Your task to perform on an android device: Go to Google maps Image 0: 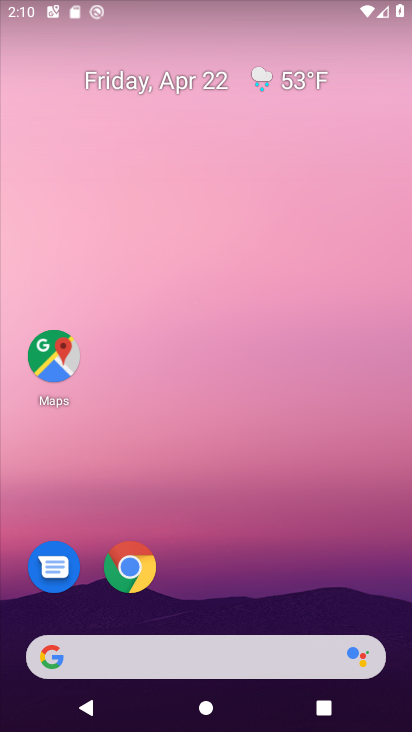
Step 0: click (46, 345)
Your task to perform on an android device: Go to Google maps Image 1: 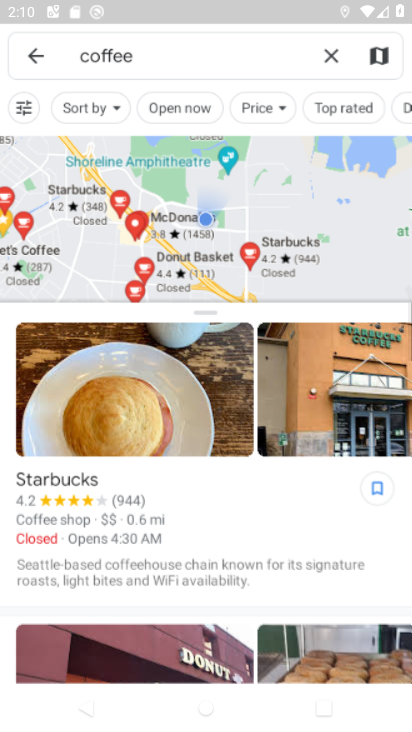
Step 1: click (326, 44)
Your task to perform on an android device: Go to Google maps Image 2: 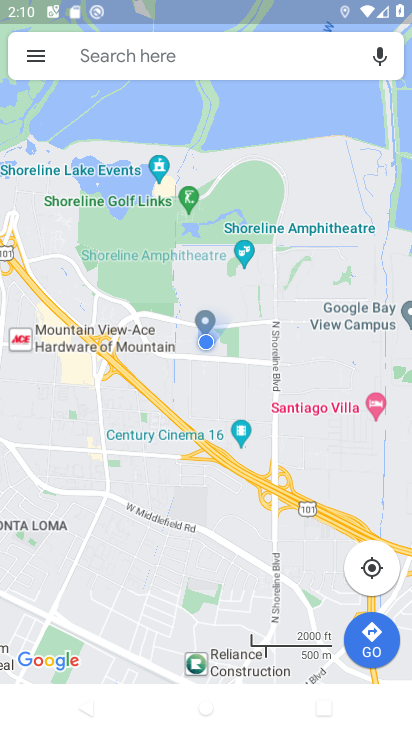
Step 2: task complete